Your task to perform on an android device: search for starred emails in the gmail app Image 0: 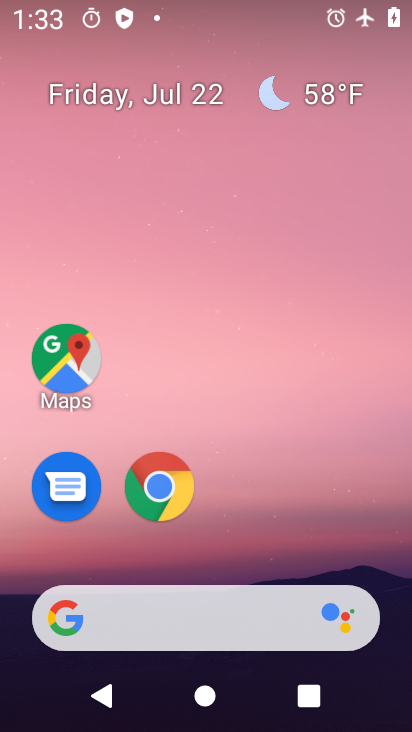
Step 0: press home button
Your task to perform on an android device: search for starred emails in the gmail app Image 1: 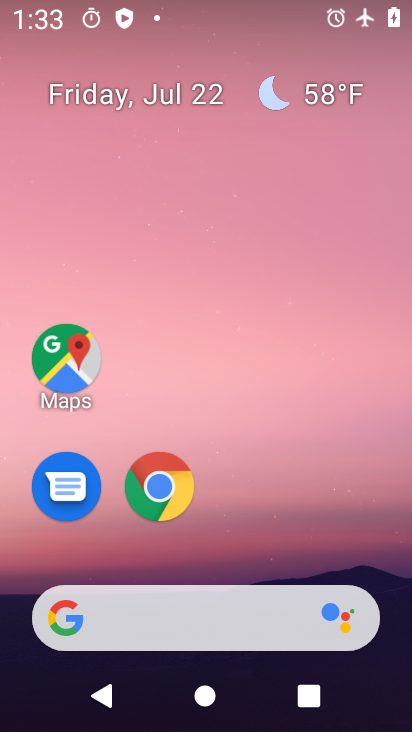
Step 1: drag from (358, 499) to (373, 135)
Your task to perform on an android device: search for starred emails in the gmail app Image 2: 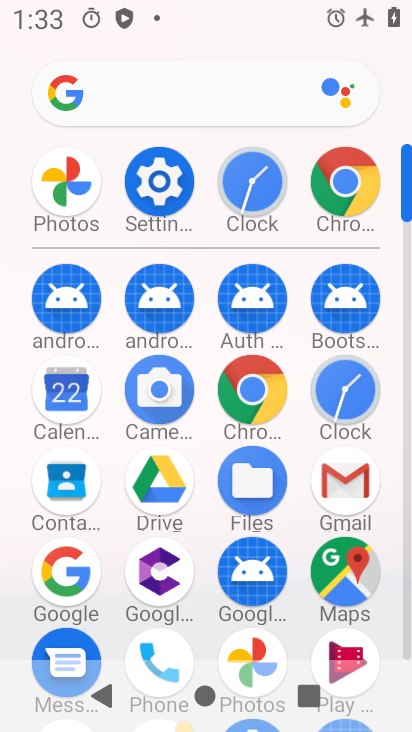
Step 2: click (344, 484)
Your task to perform on an android device: search for starred emails in the gmail app Image 3: 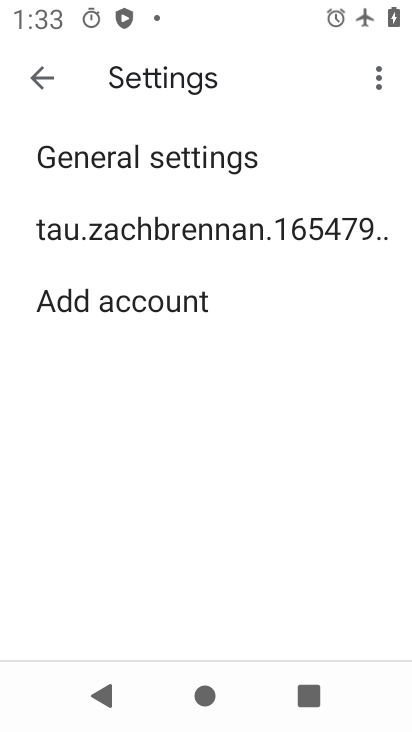
Step 3: press back button
Your task to perform on an android device: search for starred emails in the gmail app Image 4: 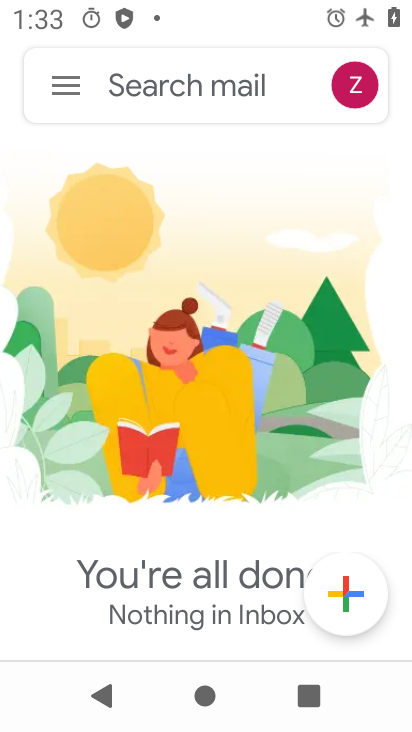
Step 4: click (65, 92)
Your task to perform on an android device: search for starred emails in the gmail app Image 5: 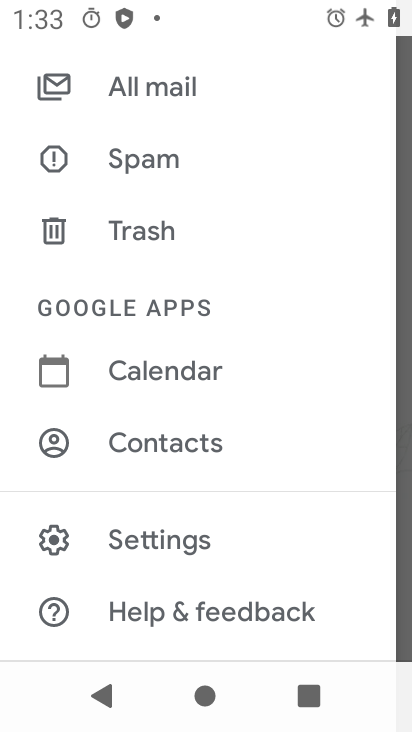
Step 5: drag from (327, 255) to (336, 320)
Your task to perform on an android device: search for starred emails in the gmail app Image 6: 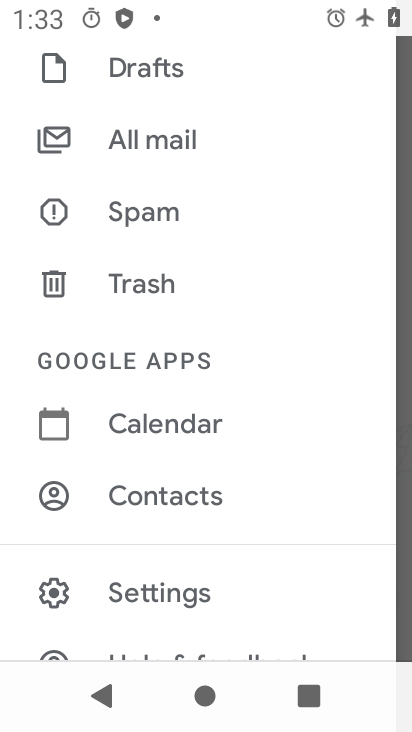
Step 6: drag from (336, 276) to (338, 344)
Your task to perform on an android device: search for starred emails in the gmail app Image 7: 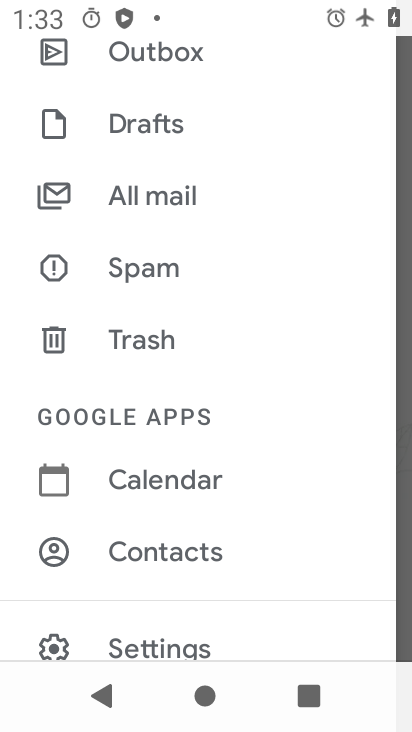
Step 7: drag from (331, 283) to (331, 365)
Your task to perform on an android device: search for starred emails in the gmail app Image 8: 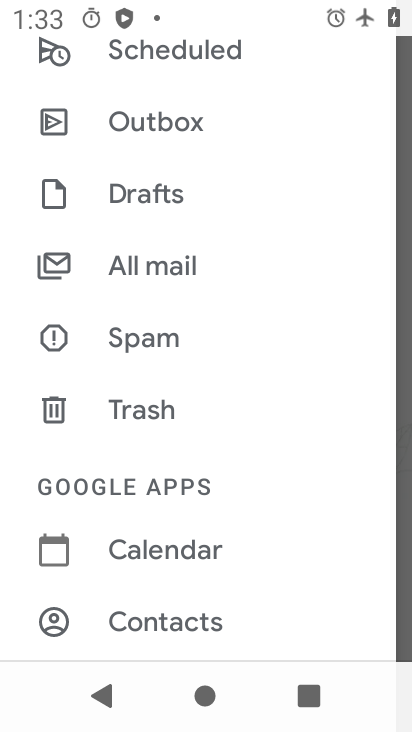
Step 8: drag from (329, 248) to (329, 318)
Your task to perform on an android device: search for starred emails in the gmail app Image 9: 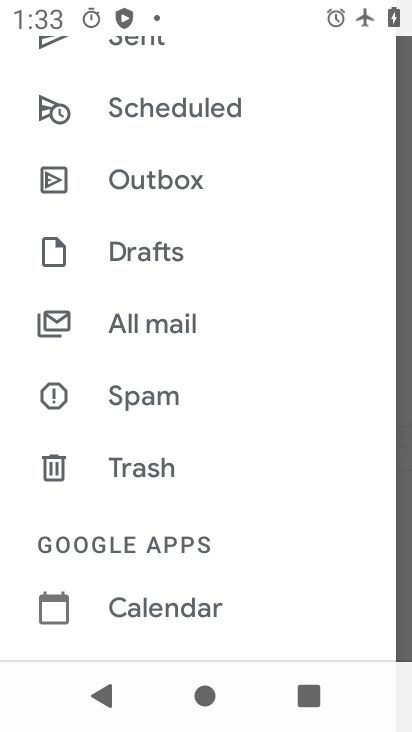
Step 9: drag from (329, 215) to (330, 301)
Your task to perform on an android device: search for starred emails in the gmail app Image 10: 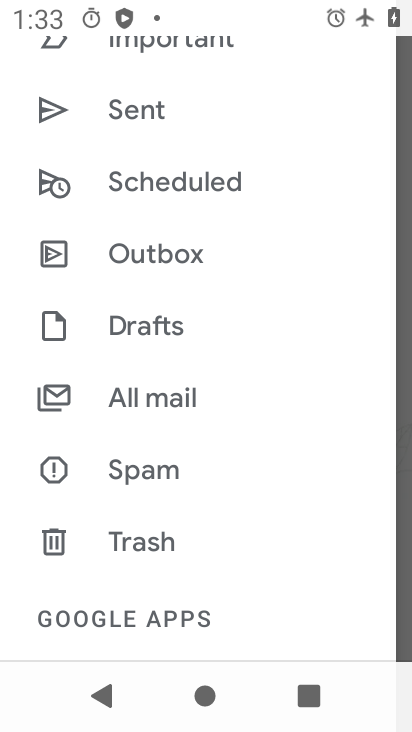
Step 10: drag from (336, 209) to (340, 291)
Your task to perform on an android device: search for starred emails in the gmail app Image 11: 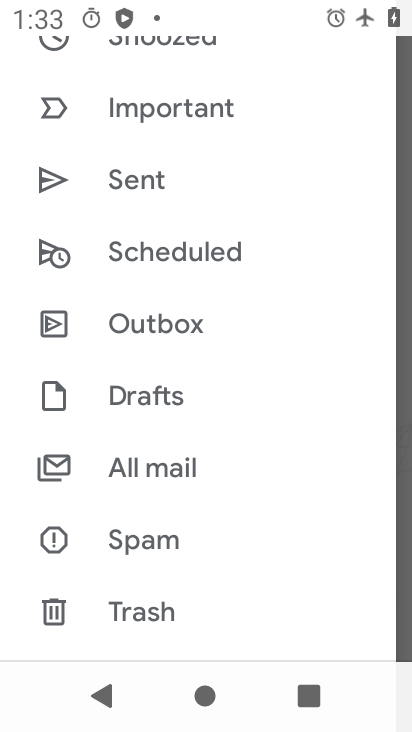
Step 11: drag from (346, 238) to (346, 332)
Your task to perform on an android device: search for starred emails in the gmail app Image 12: 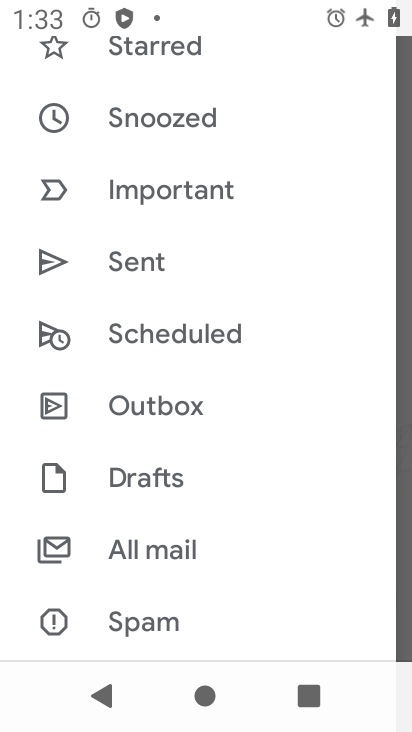
Step 12: drag from (345, 239) to (345, 303)
Your task to perform on an android device: search for starred emails in the gmail app Image 13: 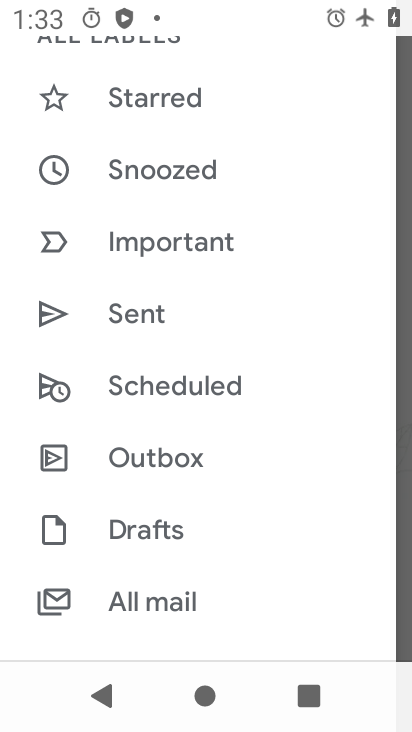
Step 13: drag from (329, 208) to (328, 290)
Your task to perform on an android device: search for starred emails in the gmail app Image 14: 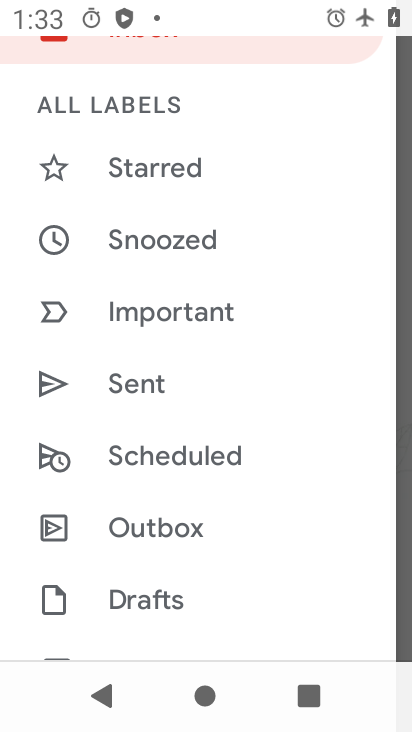
Step 14: drag from (324, 200) to (322, 305)
Your task to perform on an android device: search for starred emails in the gmail app Image 15: 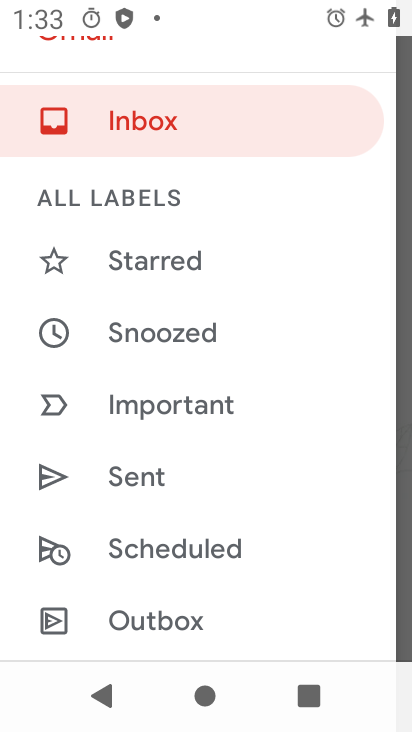
Step 15: click (250, 269)
Your task to perform on an android device: search for starred emails in the gmail app Image 16: 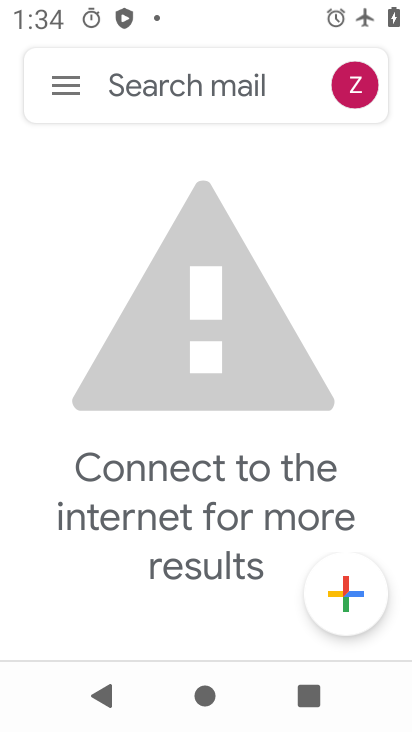
Step 16: task complete